Your task to perform on an android device: Search for Italian restaurants on Maps Image 0: 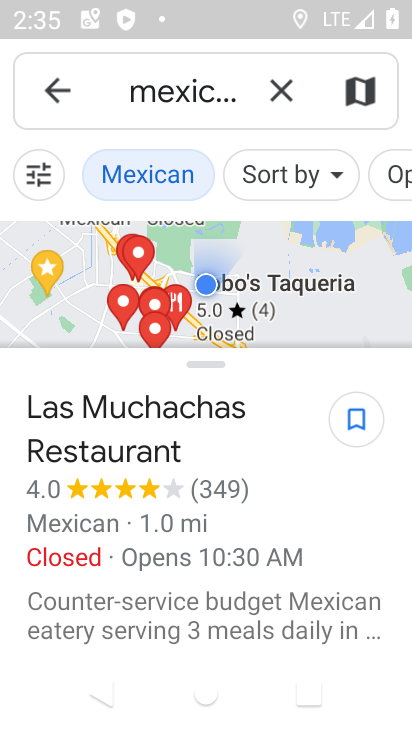
Step 0: click (282, 89)
Your task to perform on an android device: Search for Italian restaurants on Maps Image 1: 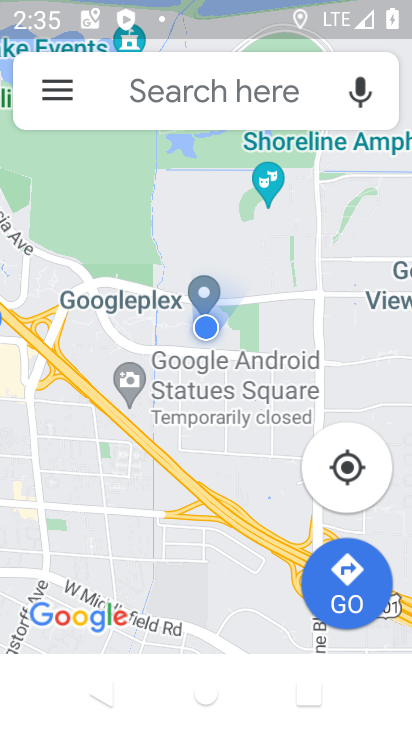
Step 1: click (229, 94)
Your task to perform on an android device: Search for Italian restaurants on Maps Image 2: 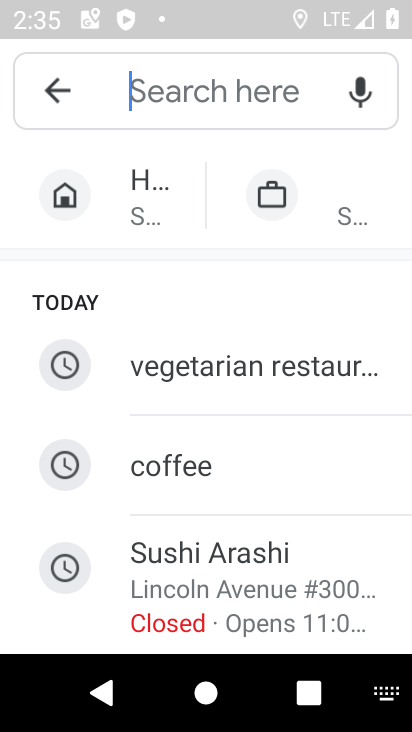
Step 2: type "Italian restaurants"
Your task to perform on an android device: Search for Italian restaurants on Maps Image 3: 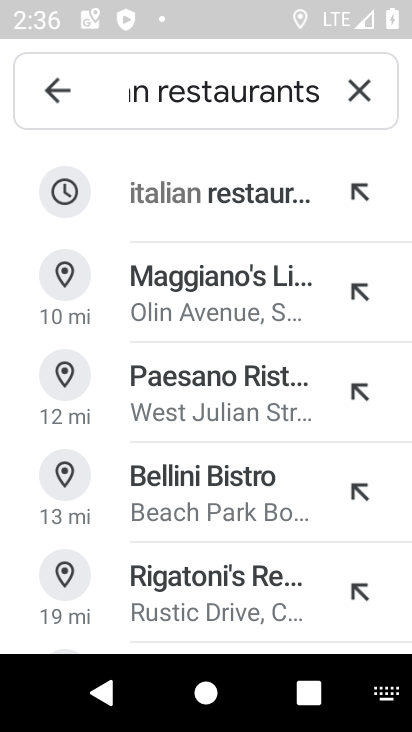
Step 3: click (237, 195)
Your task to perform on an android device: Search for Italian restaurants on Maps Image 4: 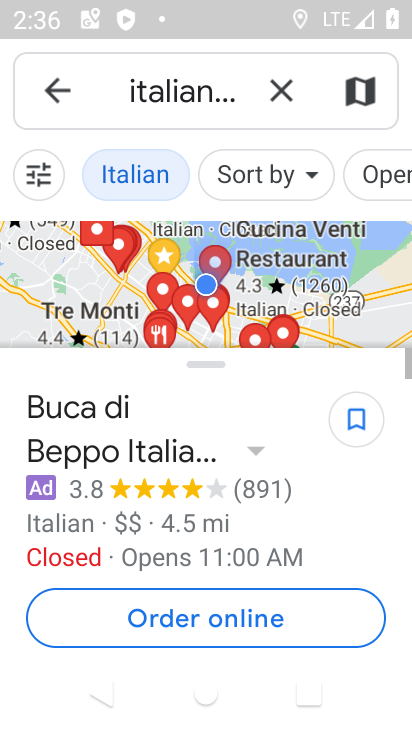
Step 4: task complete